Your task to perform on an android device: Go to network settings Image 0: 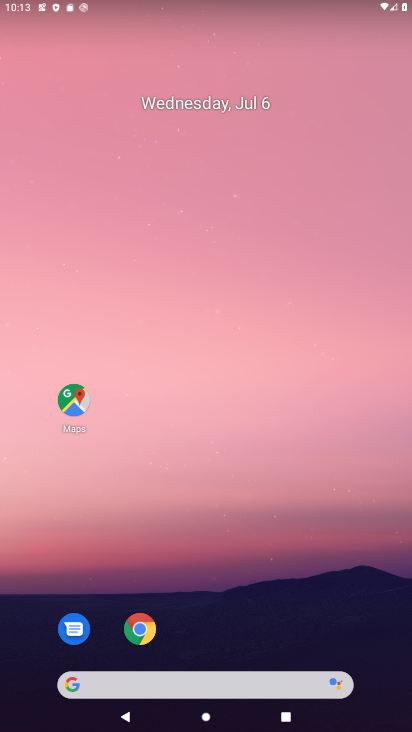
Step 0: drag from (236, 637) to (250, 140)
Your task to perform on an android device: Go to network settings Image 1: 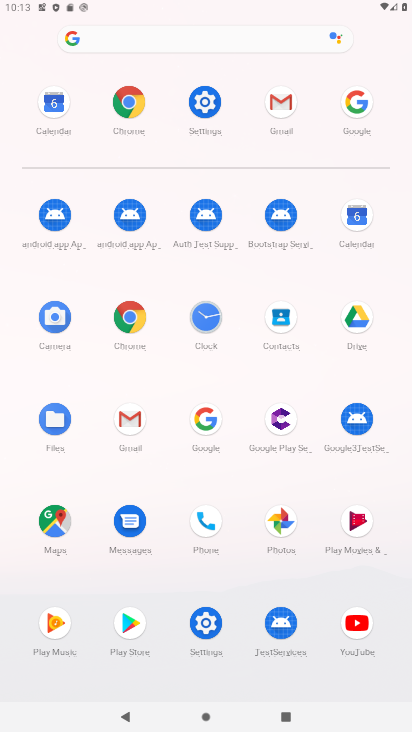
Step 1: click (212, 101)
Your task to perform on an android device: Go to network settings Image 2: 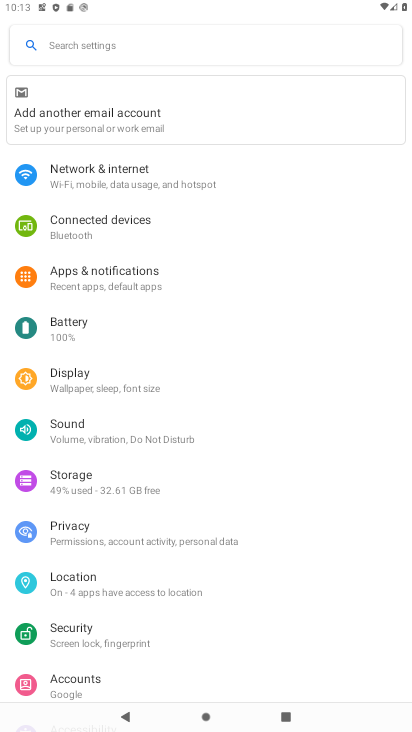
Step 2: click (139, 165)
Your task to perform on an android device: Go to network settings Image 3: 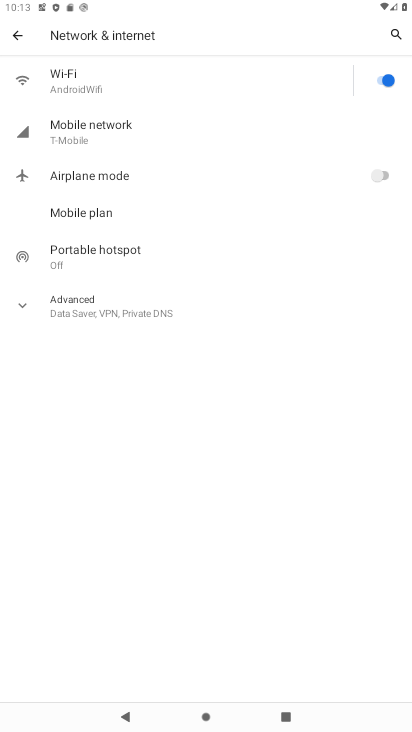
Step 3: click (122, 124)
Your task to perform on an android device: Go to network settings Image 4: 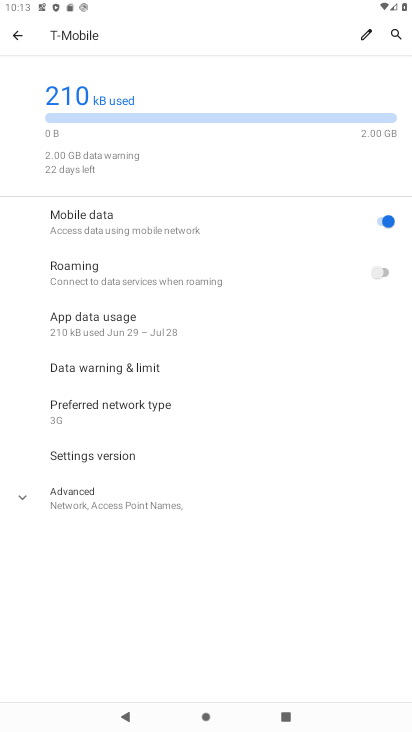
Step 4: task complete